Your task to perform on an android device: Open Reddit Image 0: 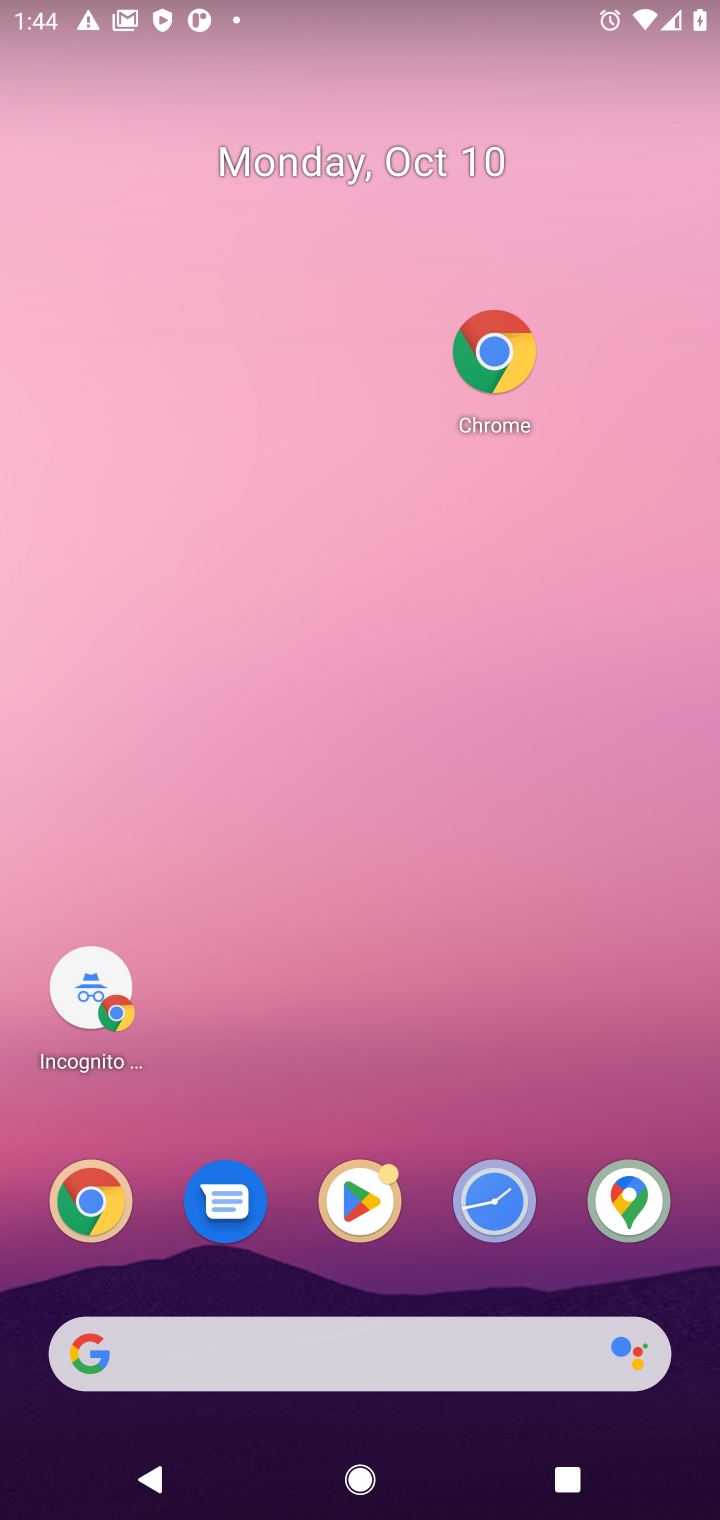
Step 0: click (292, 1346)
Your task to perform on an android device: Open Reddit Image 1: 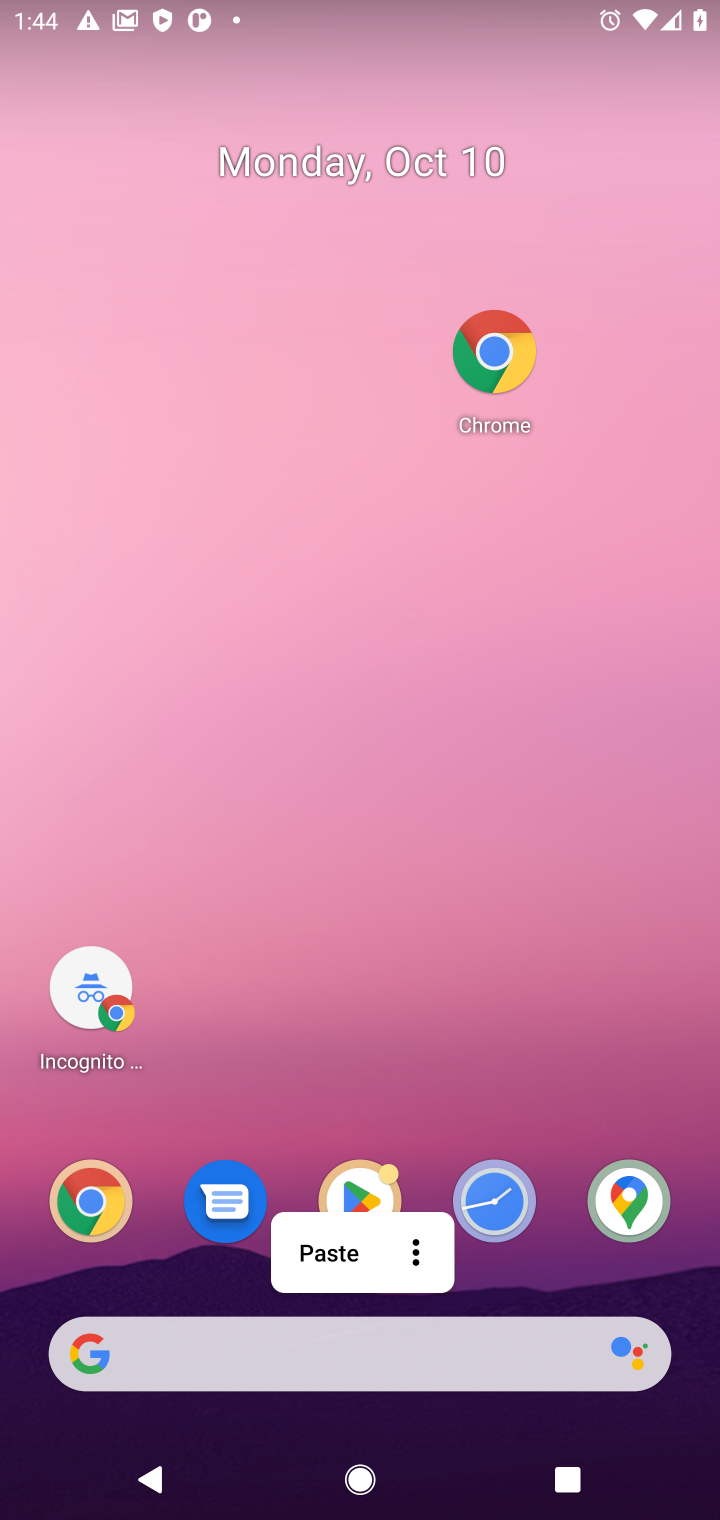
Step 1: click (485, 361)
Your task to perform on an android device: Open Reddit Image 2: 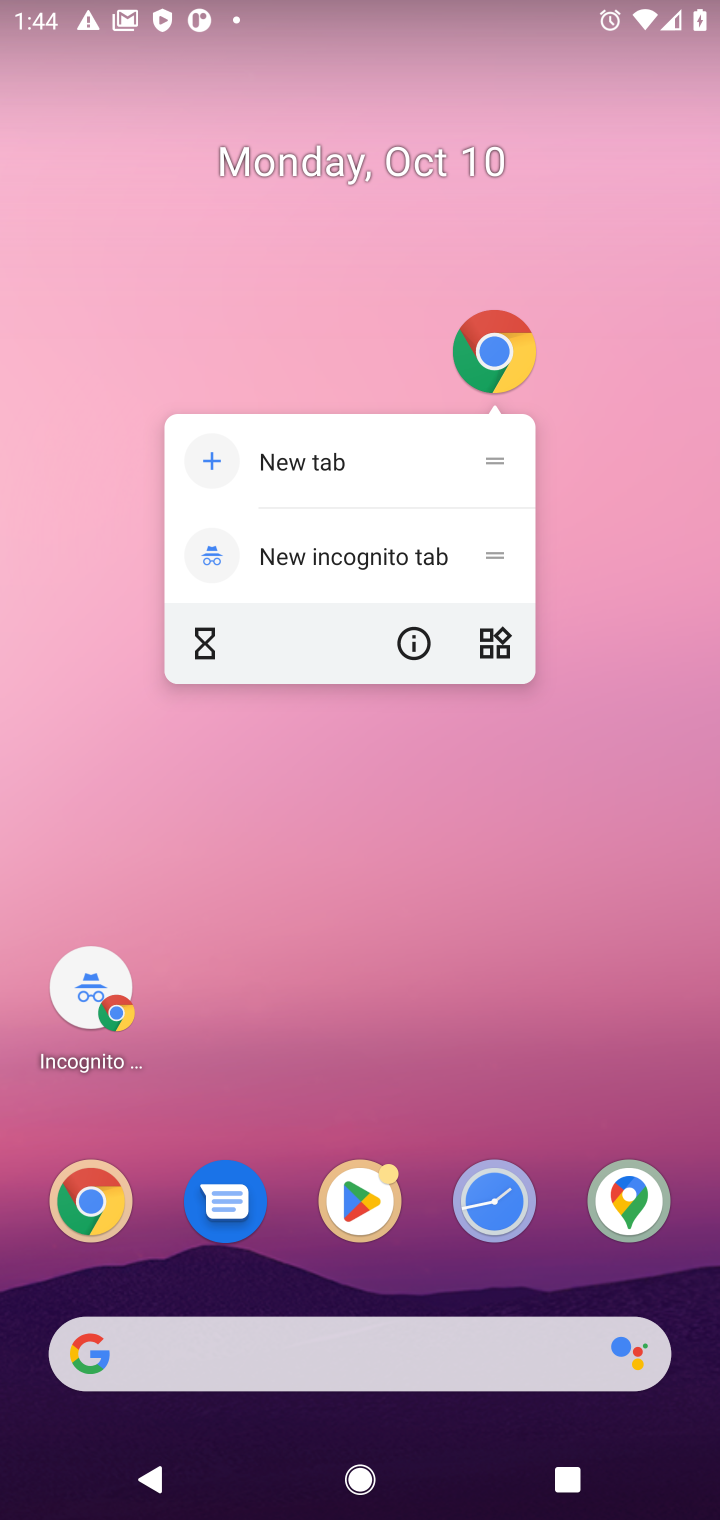
Step 2: click (485, 360)
Your task to perform on an android device: Open Reddit Image 3: 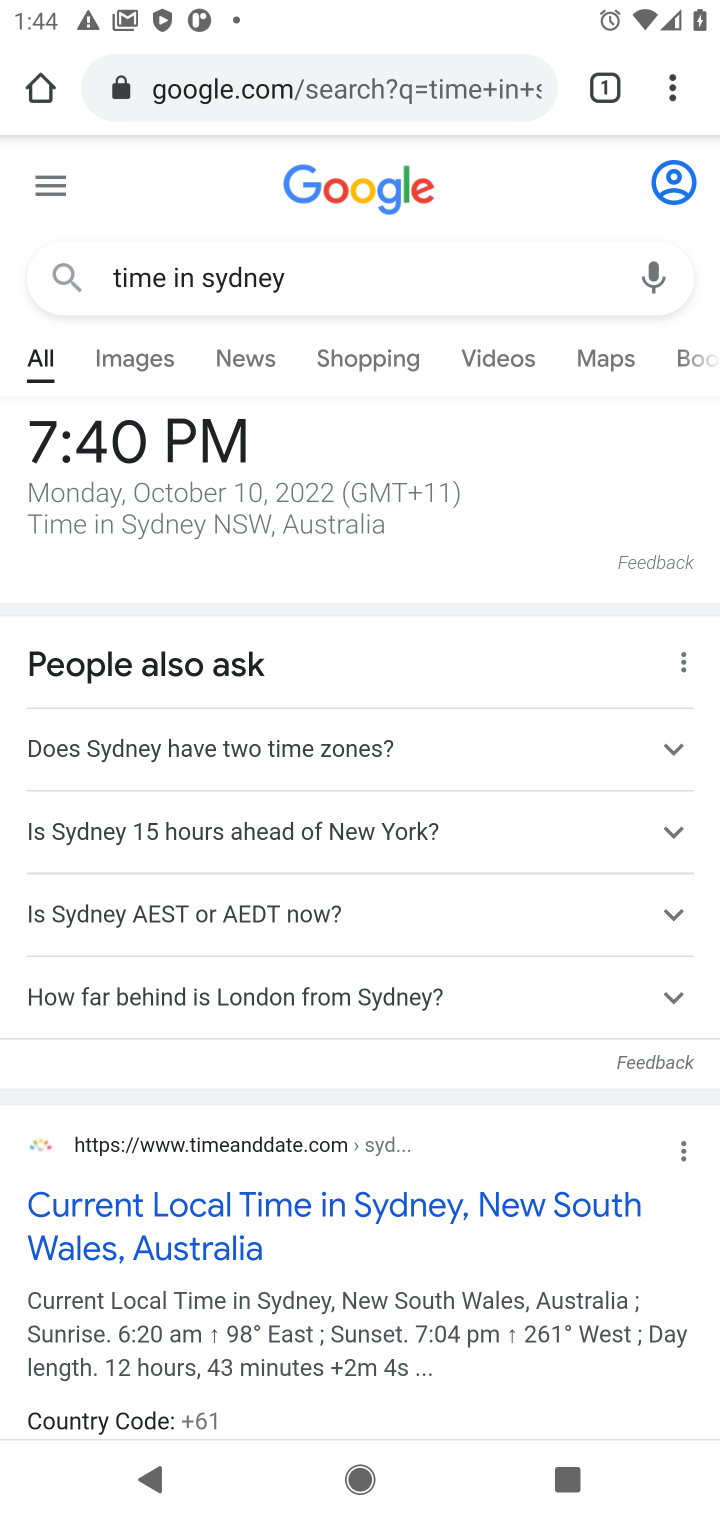
Step 3: click (305, 278)
Your task to perform on an android device: Open Reddit Image 4: 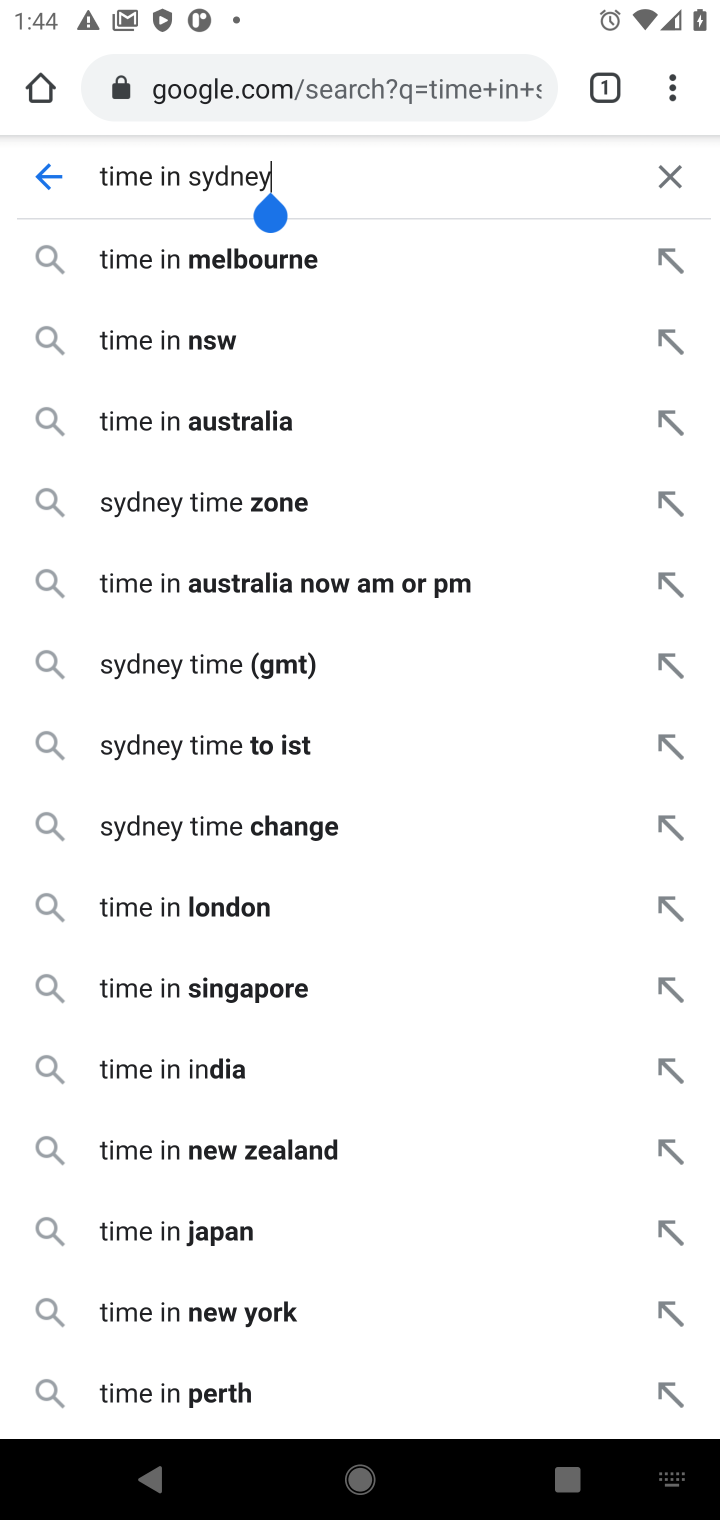
Step 4: click (687, 184)
Your task to perform on an android device: Open Reddit Image 5: 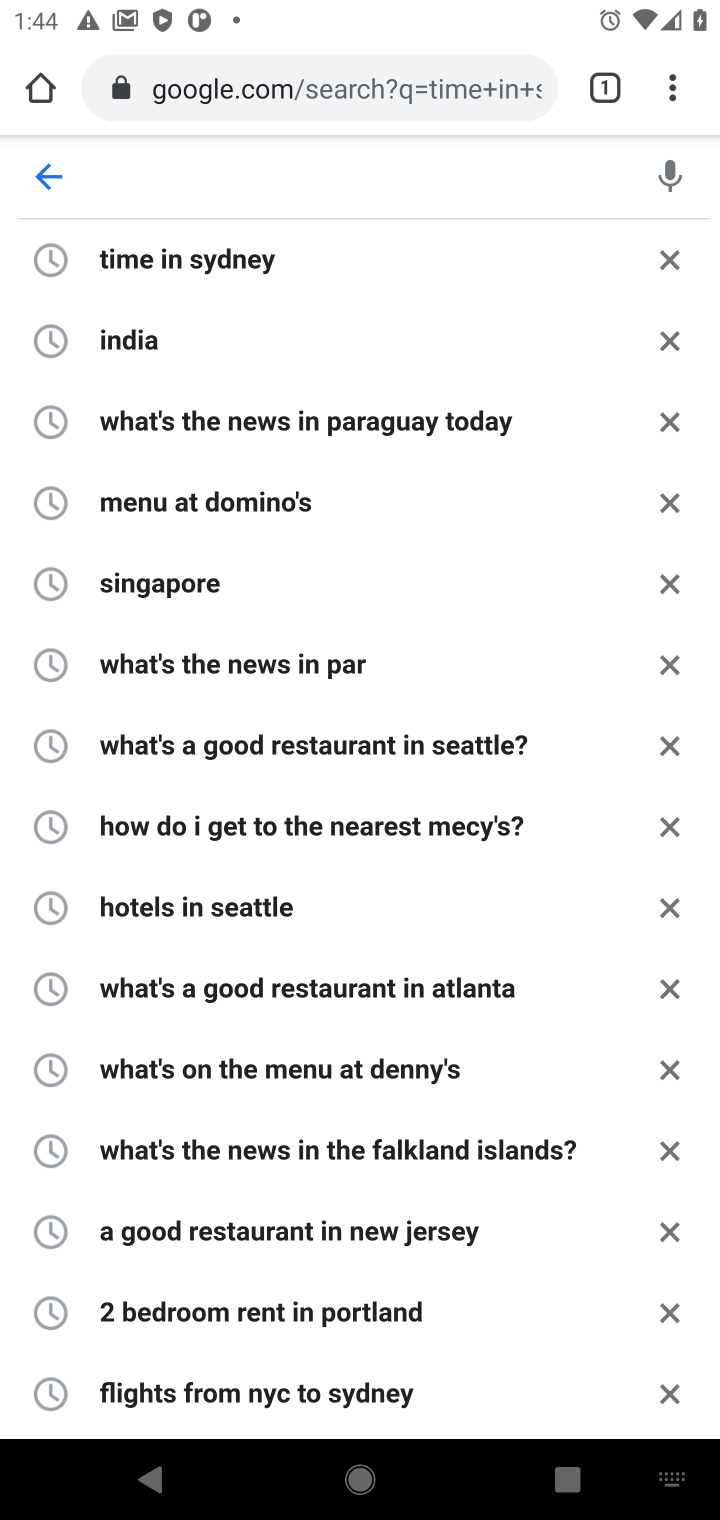
Step 5: type "reddit"
Your task to perform on an android device: Open Reddit Image 6: 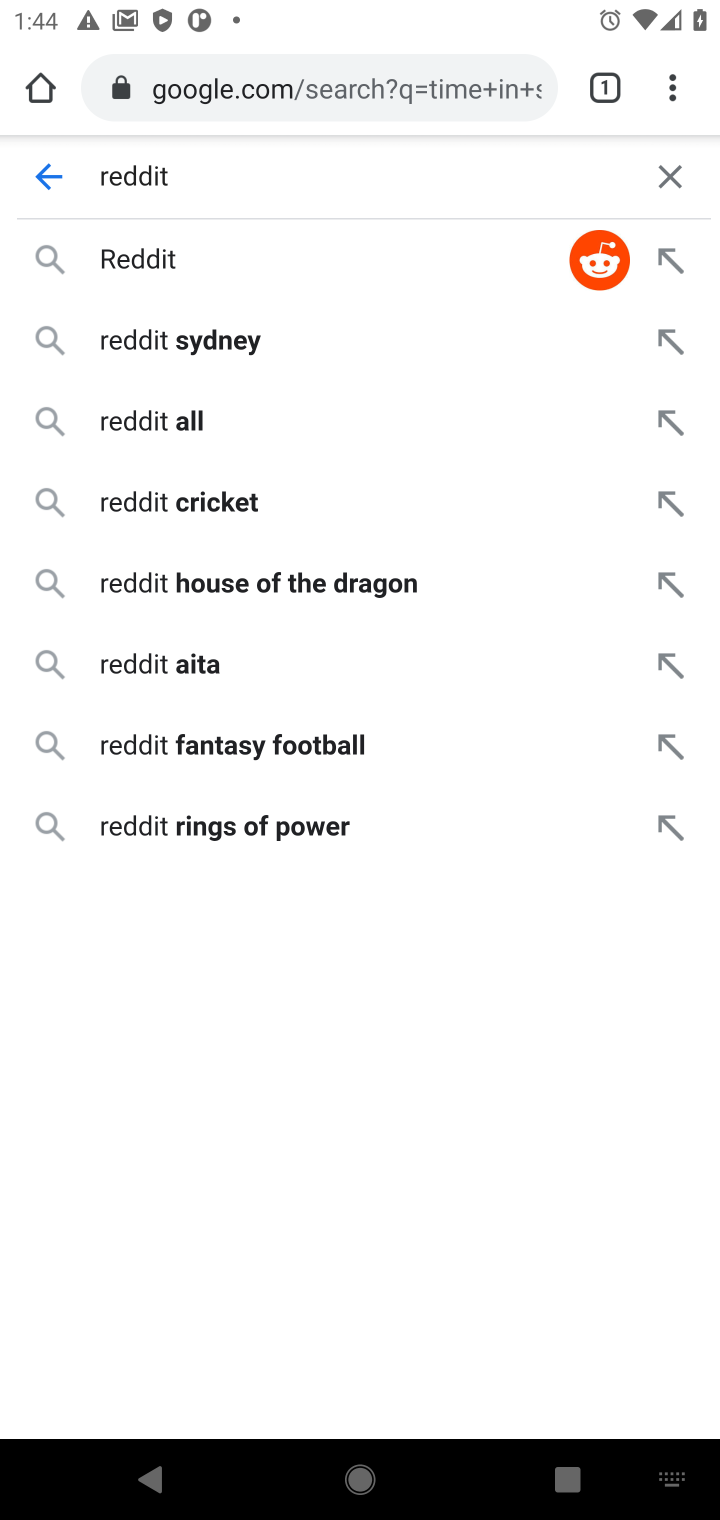
Step 6: click (136, 270)
Your task to perform on an android device: Open Reddit Image 7: 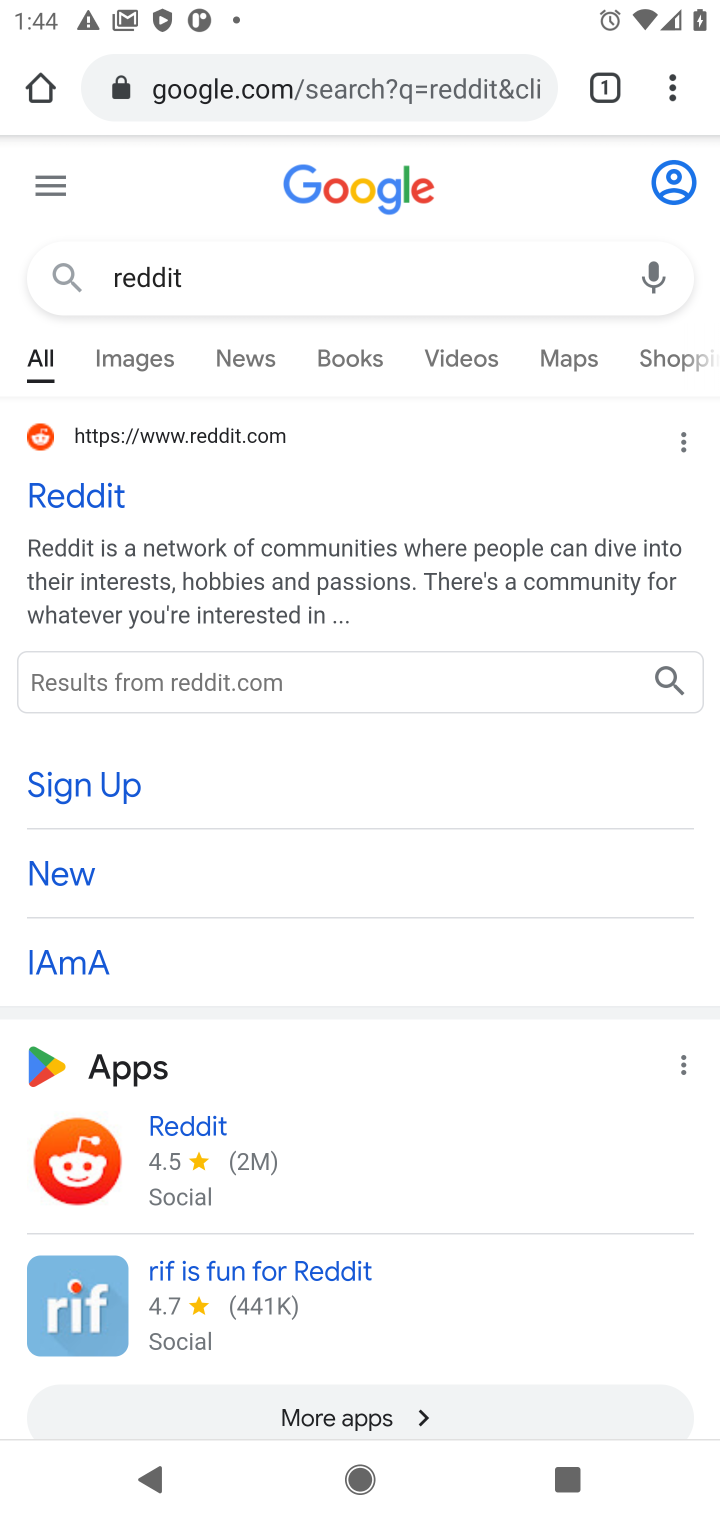
Step 7: click (84, 493)
Your task to perform on an android device: Open Reddit Image 8: 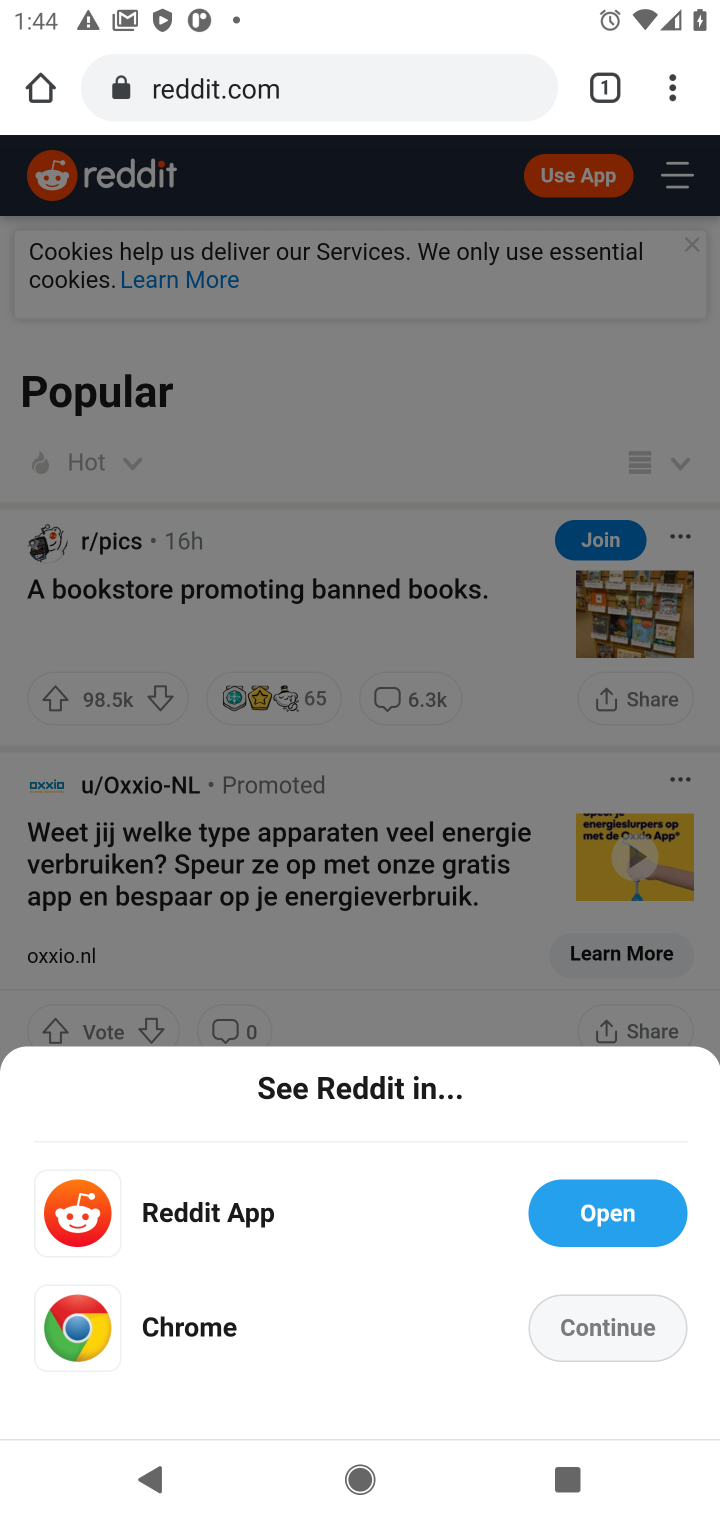
Step 8: task complete